Your task to perform on an android device: turn pop-ups off in chrome Image 0: 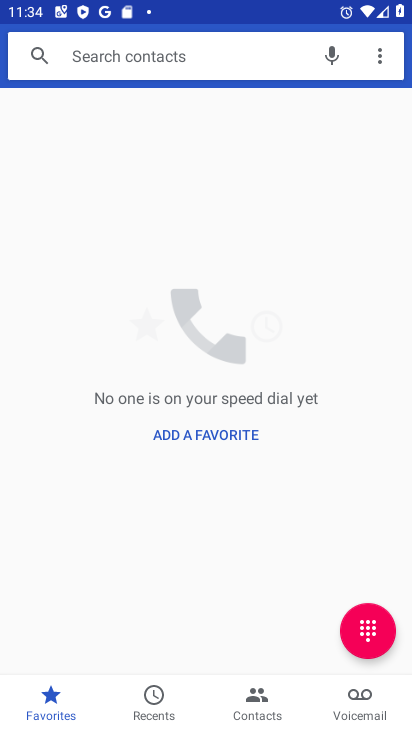
Step 0: press home button
Your task to perform on an android device: turn pop-ups off in chrome Image 1: 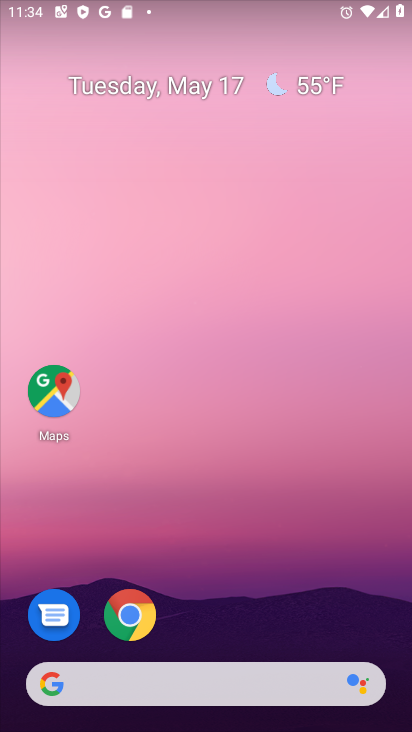
Step 1: drag from (280, 605) to (305, 87)
Your task to perform on an android device: turn pop-ups off in chrome Image 2: 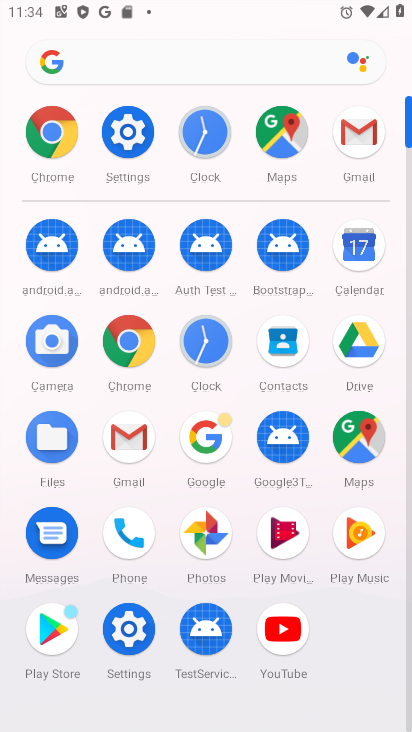
Step 2: click (123, 352)
Your task to perform on an android device: turn pop-ups off in chrome Image 3: 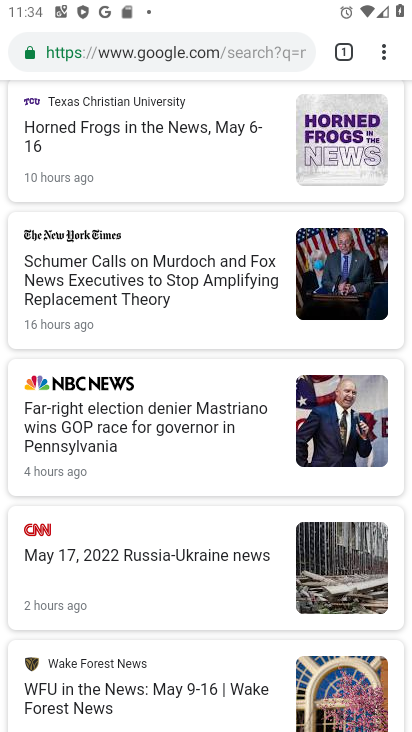
Step 3: drag from (384, 47) to (208, 591)
Your task to perform on an android device: turn pop-ups off in chrome Image 4: 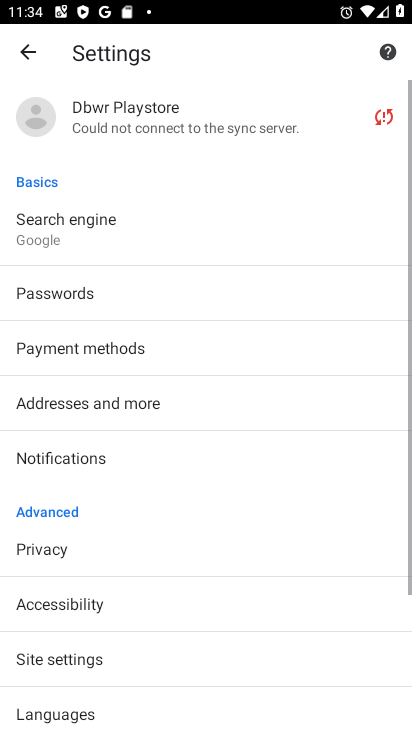
Step 4: drag from (203, 553) to (244, 302)
Your task to perform on an android device: turn pop-ups off in chrome Image 5: 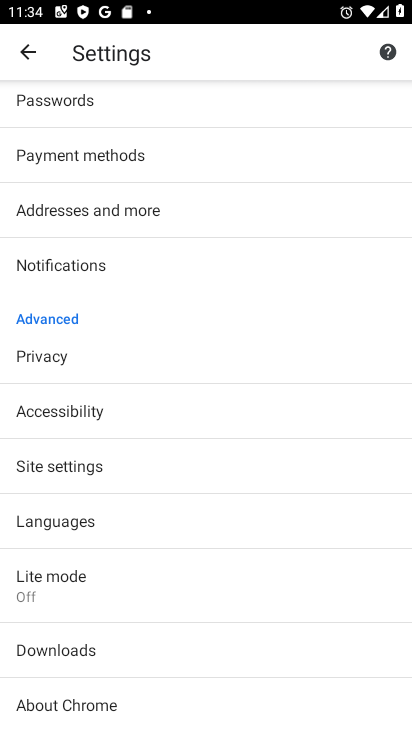
Step 5: click (107, 457)
Your task to perform on an android device: turn pop-ups off in chrome Image 6: 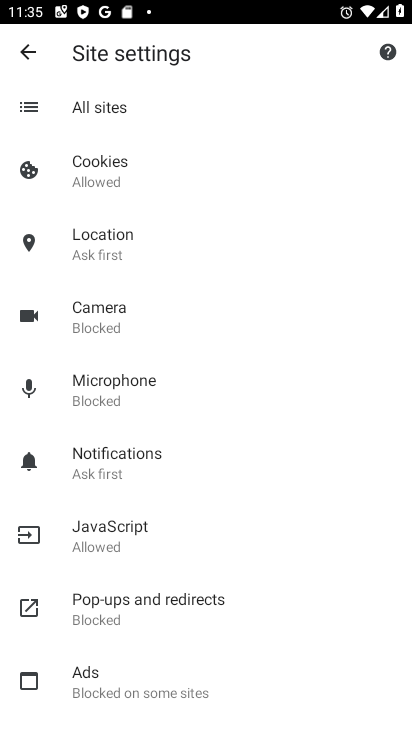
Step 6: drag from (270, 606) to (327, 408)
Your task to perform on an android device: turn pop-ups off in chrome Image 7: 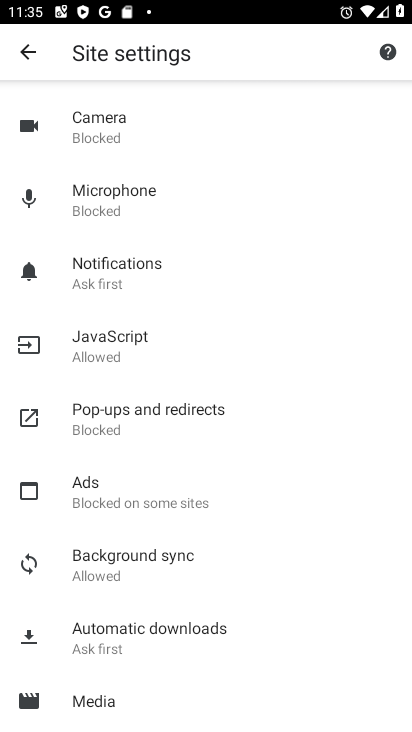
Step 7: click (151, 413)
Your task to perform on an android device: turn pop-ups off in chrome Image 8: 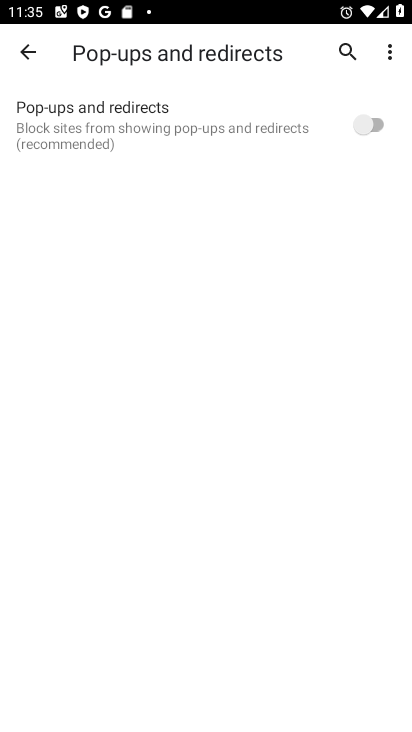
Step 8: task complete